Your task to perform on an android device: turn on priority inbox in the gmail app Image 0: 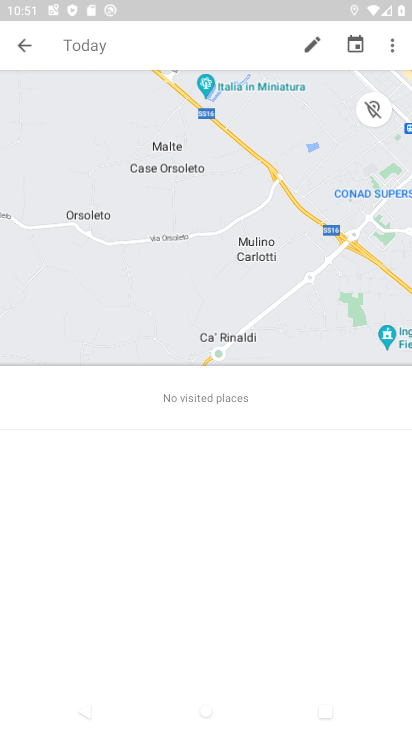
Step 0: press home button
Your task to perform on an android device: turn on priority inbox in the gmail app Image 1: 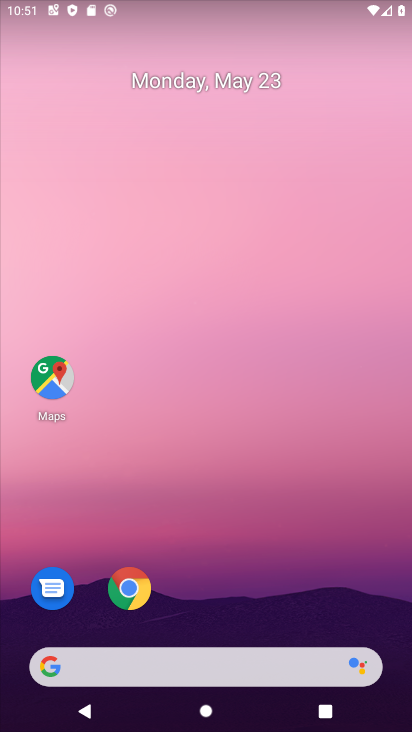
Step 1: drag from (279, 612) to (192, 139)
Your task to perform on an android device: turn on priority inbox in the gmail app Image 2: 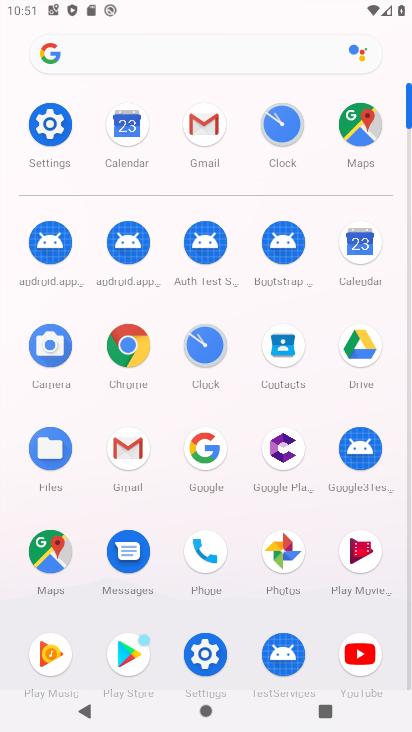
Step 2: click (196, 116)
Your task to perform on an android device: turn on priority inbox in the gmail app Image 3: 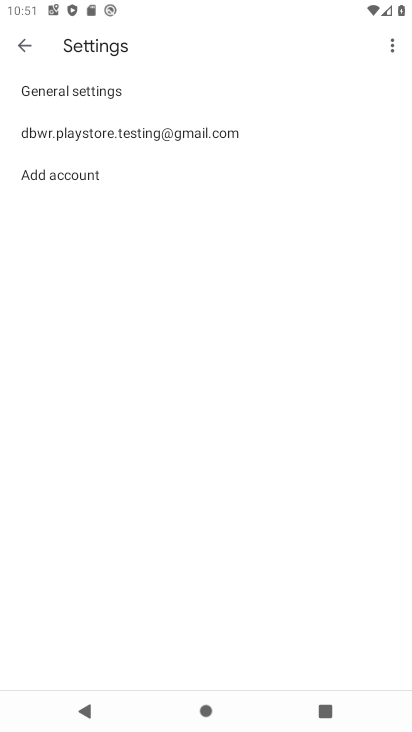
Step 3: click (175, 110)
Your task to perform on an android device: turn on priority inbox in the gmail app Image 4: 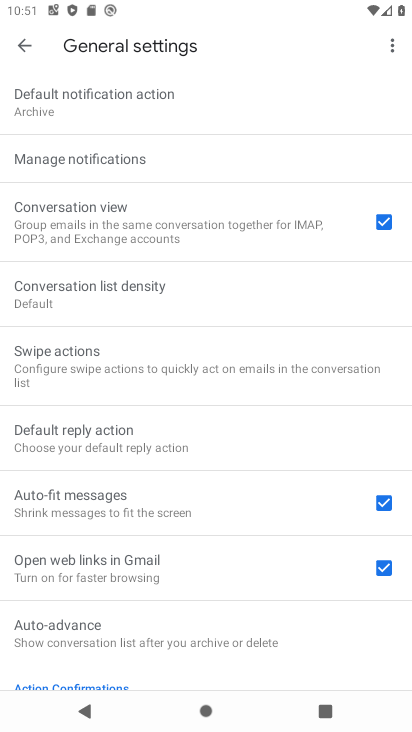
Step 4: click (25, 42)
Your task to perform on an android device: turn on priority inbox in the gmail app Image 5: 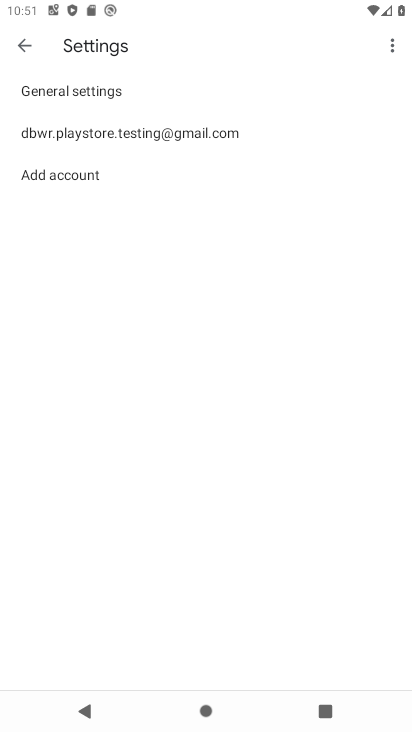
Step 5: click (107, 126)
Your task to perform on an android device: turn on priority inbox in the gmail app Image 6: 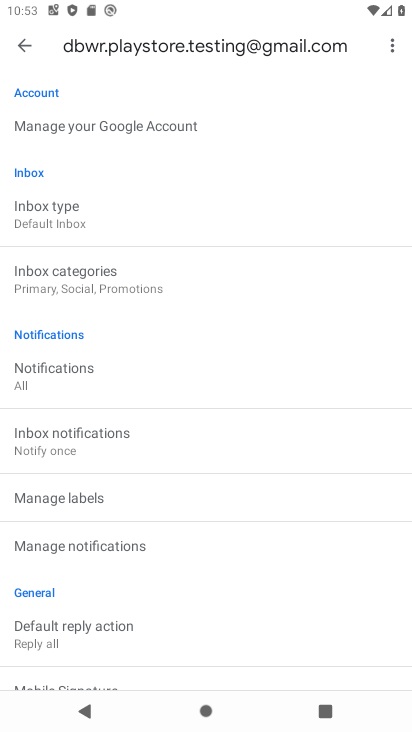
Step 6: click (49, 206)
Your task to perform on an android device: turn on priority inbox in the gmail app Image 7: 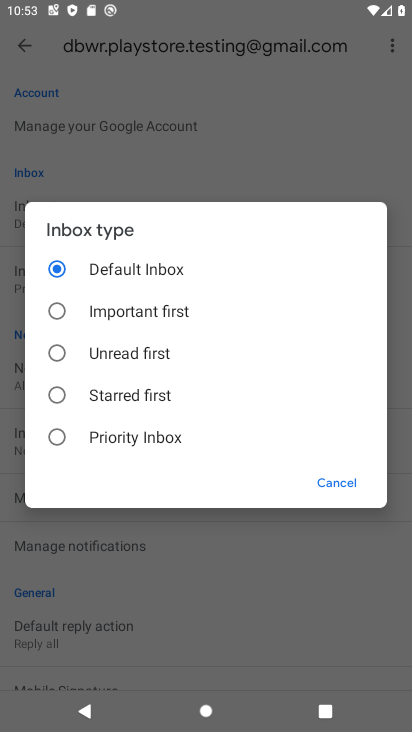
Step 7: click (117, 434)
Your task to perform on an android device: turn on priority inbox in the gmail app Image 8: 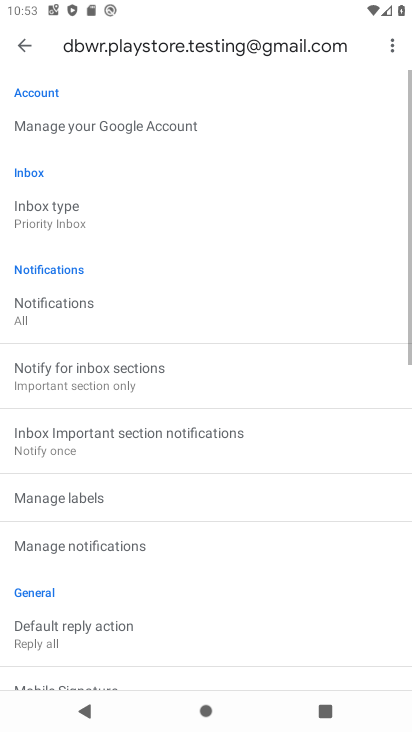
Step 8: task complete